Your task to perform on an android device: Open settings on Google Maps Image 0: 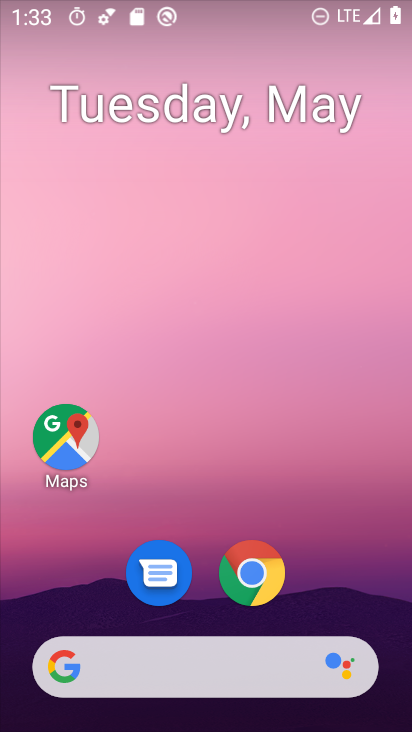
Step 0: drag from (358, 485) to (252, 98)
Your task to perform on an android device: Open settings on Google Maps Image 1: 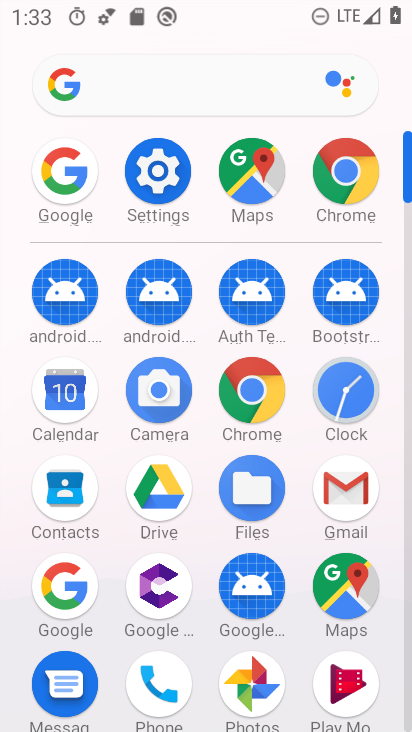
Step 1: click (266, 697)
Your task to perform on an android device: Open settings on Google Maps Image 2: 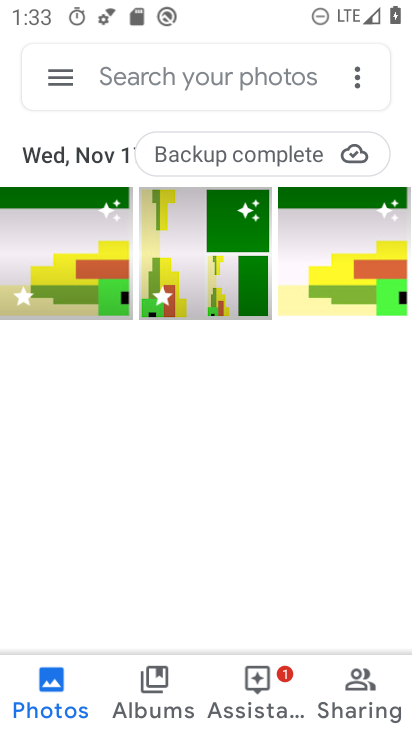
Step 2: click (76, 92)
Your task to perform on an android device: Open settings on Google Maps Image 3: 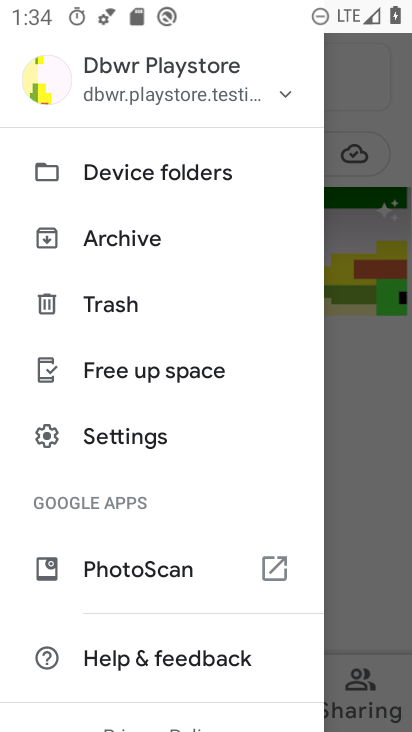
Step 3: drag from (184, 580) to (218, 219)
Your task to perform on an android device: Open settings on Google Maps Image 4: 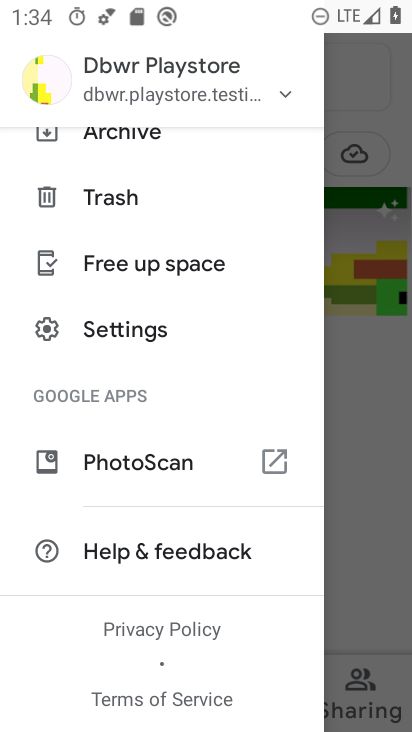
Step 4: click (142, 332)
Your task to perform on an android device: Open settings on Google Maps Image 5: 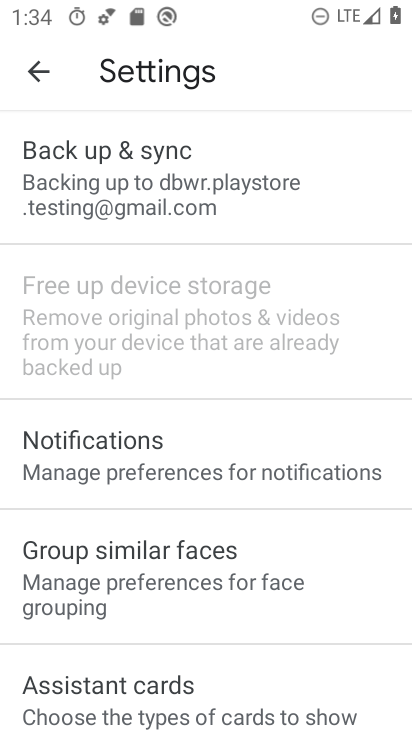
Step 5: task complete